Your task to perform on an android device: When is my next appointment? Image 0: 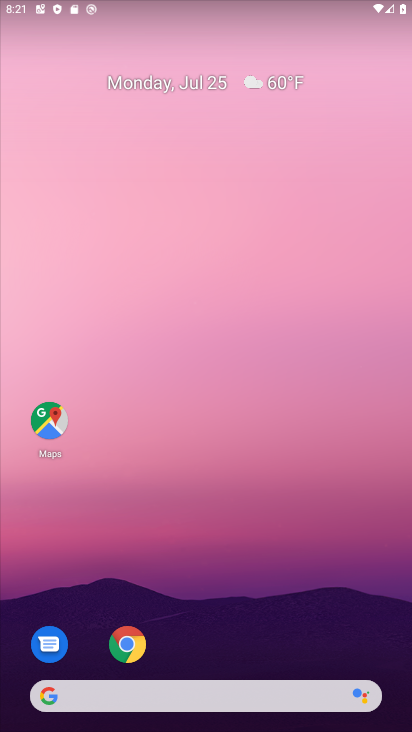
Step 0: drag from (262, 580) to (300, 84)
Your task to perform on an android device: When is my next appointment? Image 1: 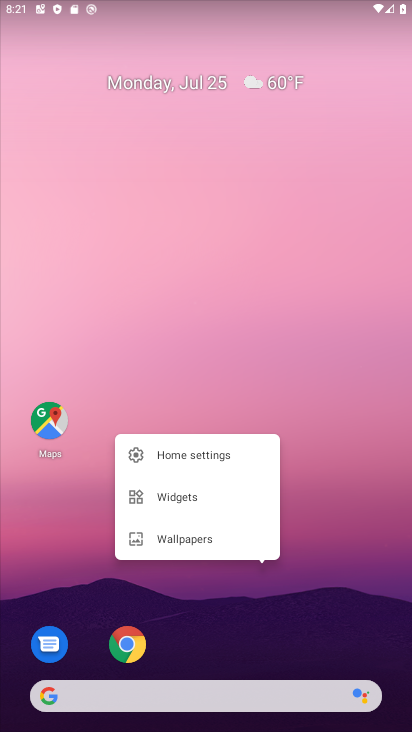
Step 1: click (364, 413)
Your task to perform on an android device: When is my next appointment? Image 2: 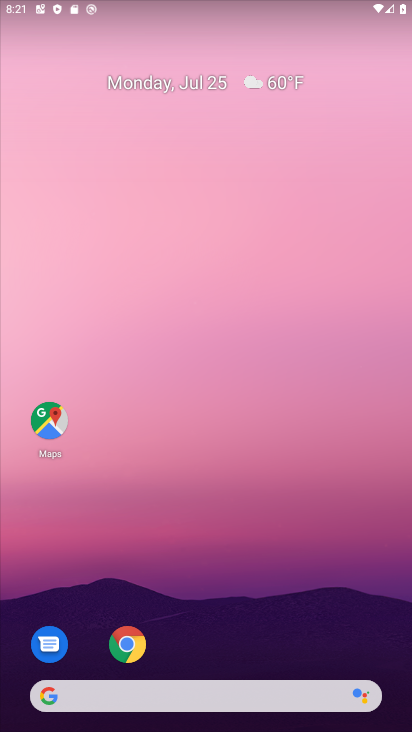
Step 2: drag from (296, 599) to (316, 90)
Your task to perform on an android device: When is my next appointment? Image 3: 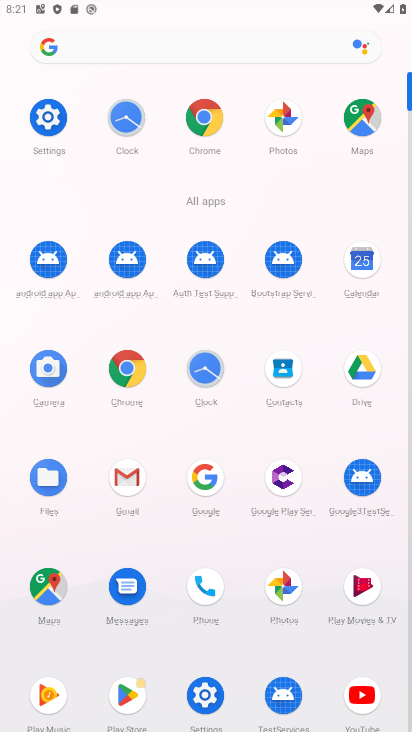
Step 3: click (357, 269)
Your task to perform on an android device: When is my next appointment? Image 4: 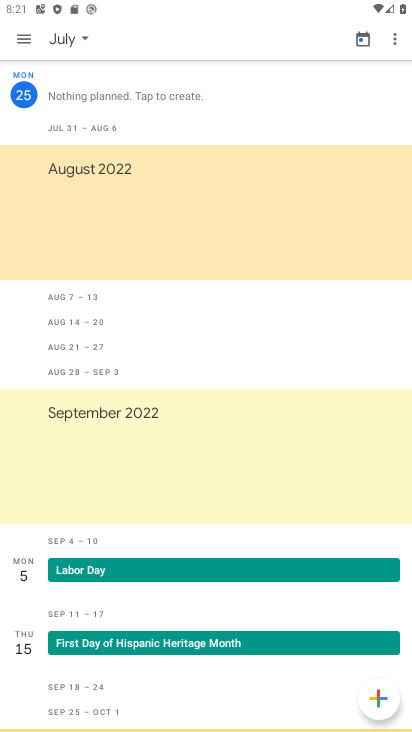
Step 4: task complete